Your task to perform on an android device: turn on priority inbox in the gmail app Image 0: 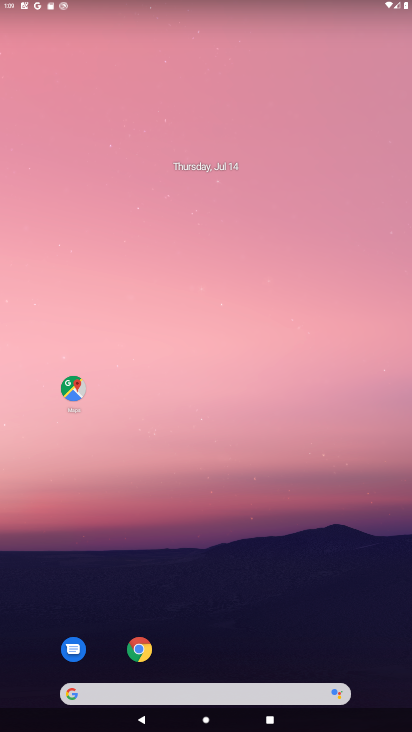
Step 0: drag from (318, 630) to (370, 178)
Your task to perform on an android device: turn on priority inbox in the gmail app Image 1: 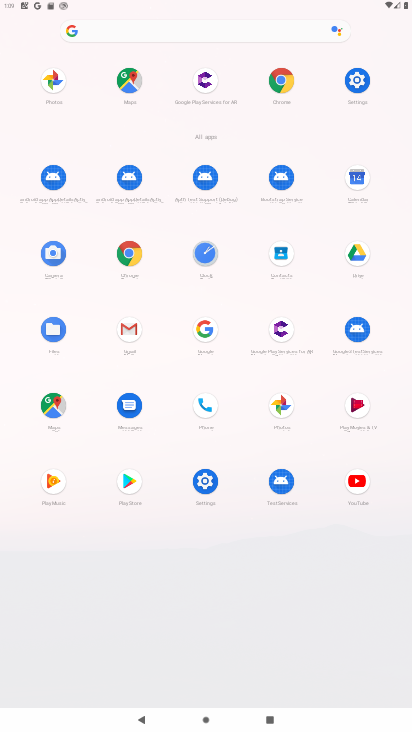
Step 1: click (142, 334)
Your task to perform on an android device: turn on priority inbox in the gmail app Image 2: 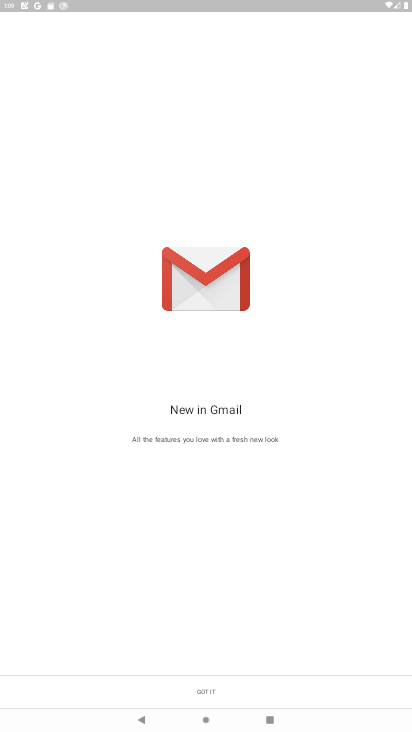
Step 2: click (317, 689)
Your task to perform on an android device: turn on priority inbox in the gmail app Image 3: 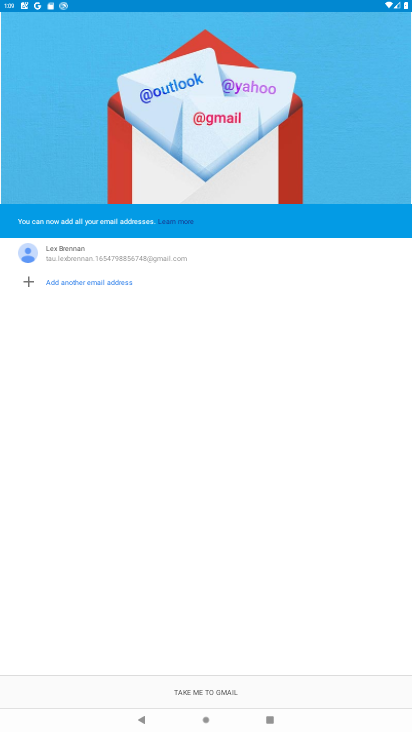
Step 3: click (317, 689)
Your task to perform on an android device: turn on priority inbox in the gmail app Image 4: 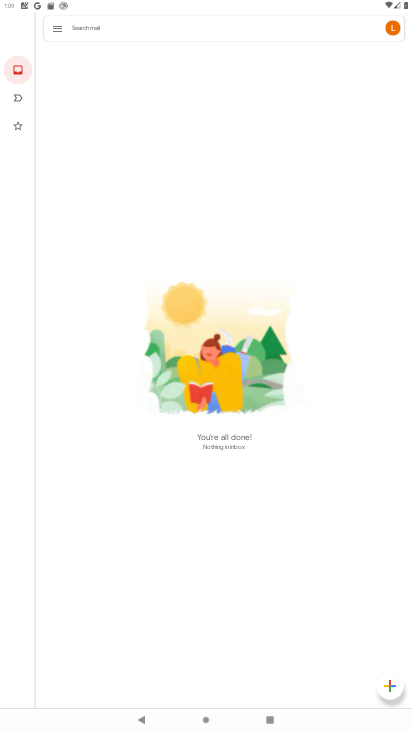
Step 4: click (62, 28)
Your task to perform on an android device: turn on priority inbox in the gmail app Image 5: 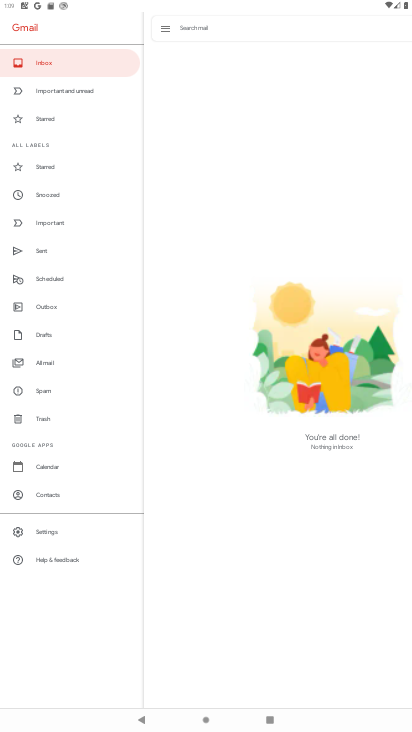
Step 5: click (78, 528)
Your task to perform on an android device: turn on priority inbox in the gmail app Image 6: 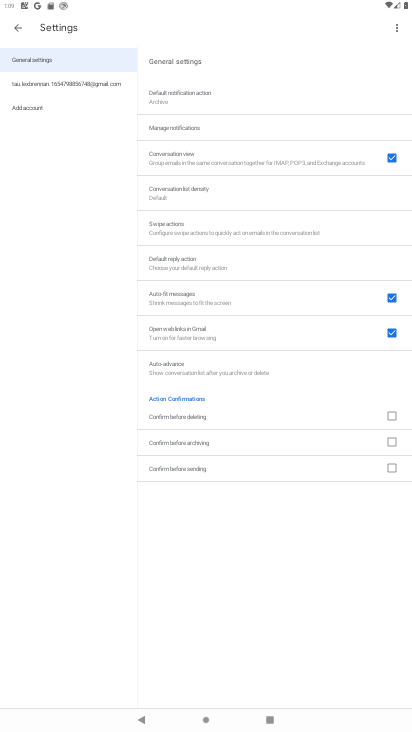
Step 6: click (89, 85)
Your task to perform on an android device: turn on priority inbox in the gmail app Image 7: 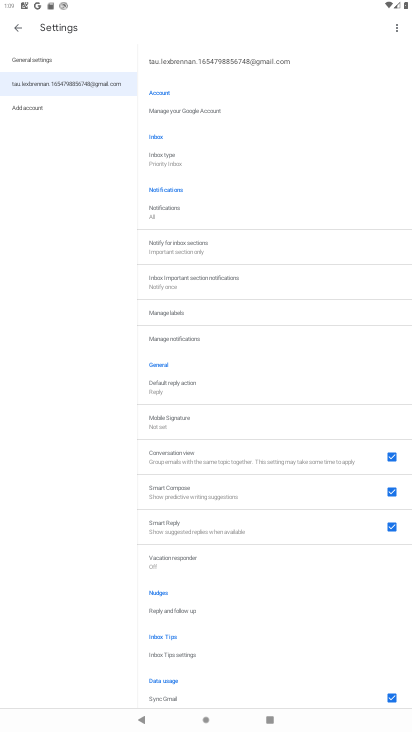
Step 7: task complete